Your task to perform on an android device: Open Wikipedia Image 0: 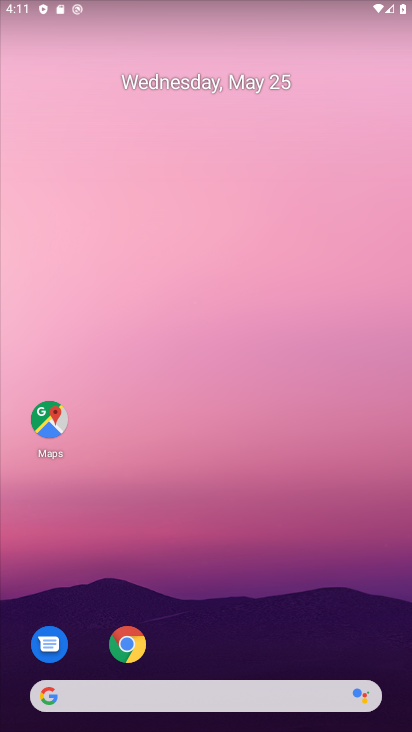
Step 0: click (124, 653)
Your task to perform on an android device: Open Wikipedia Image 1: 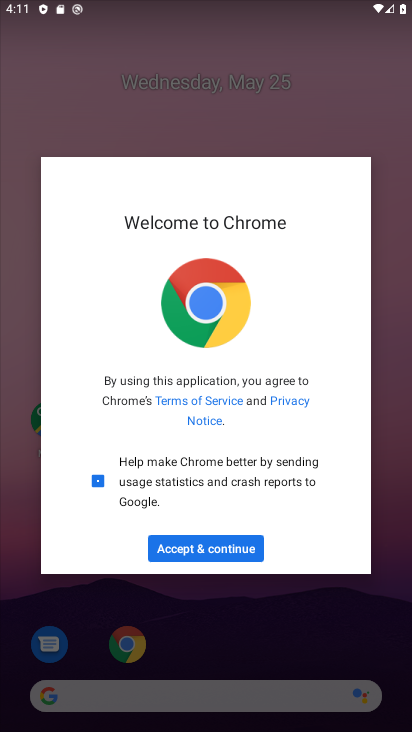
Step 1: click (124, 648)
Your task to perform on an android device: Open Wikipedia Image 2: 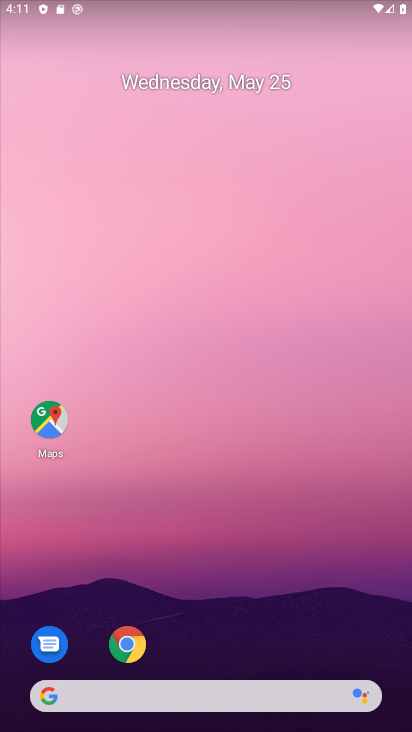
Step 2: click (229, 559)
Your task to perform on an android device: Open Wikipedia Image 3: 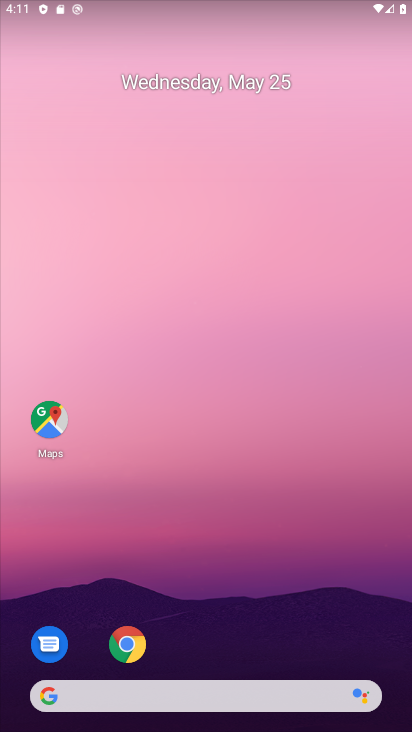
Step 3: click (149, 651)
Your task to perform on an android device: Open Wikipedia Image 4: 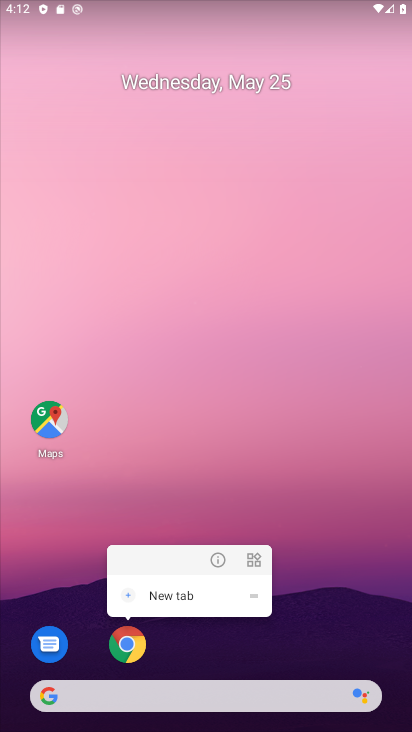
Step 4: click (136, 645)
Your task to perform on an android device: Open Wikipedia Image 5: 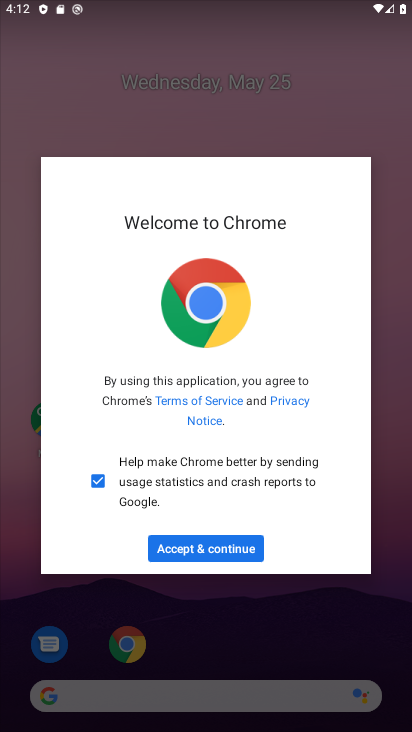
Step 5: click (212, 554)
Your task to perform on an android device: Open Wikipedia Image 6: 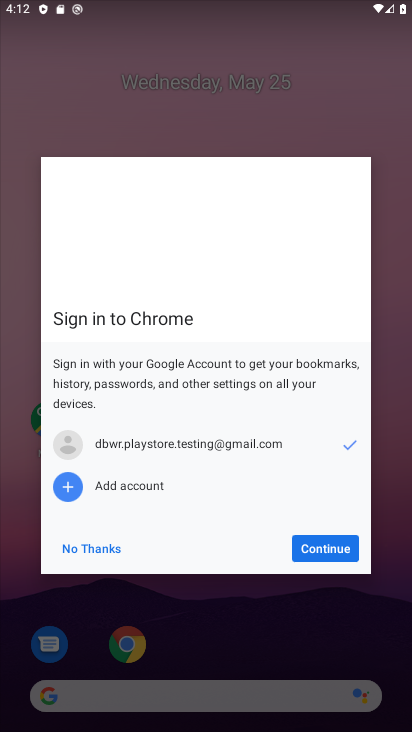
Step 6: click (359, 527)
Your task to perform on an android device: Open Wikipedia Image 7: 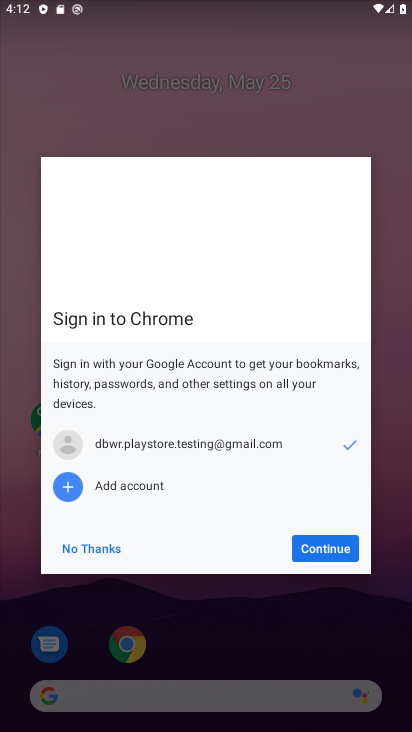
Step 7: click (330, 547)
Your task to perform on an android device: Open Wikipedia Image 8: 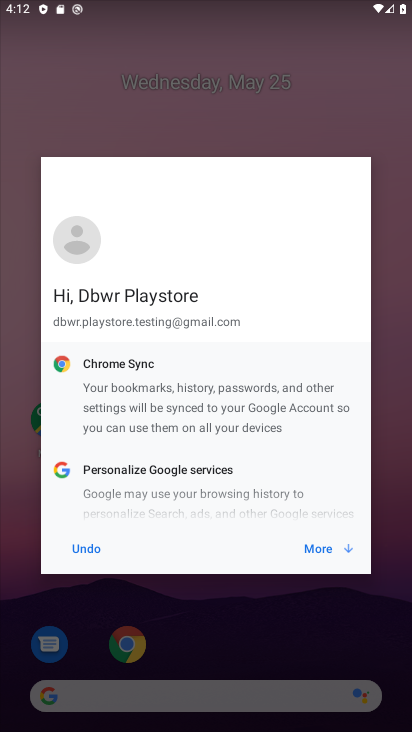
Step 8: click (330, 547)
Your task to perform on an android device: Open Wikipedia Image 9: 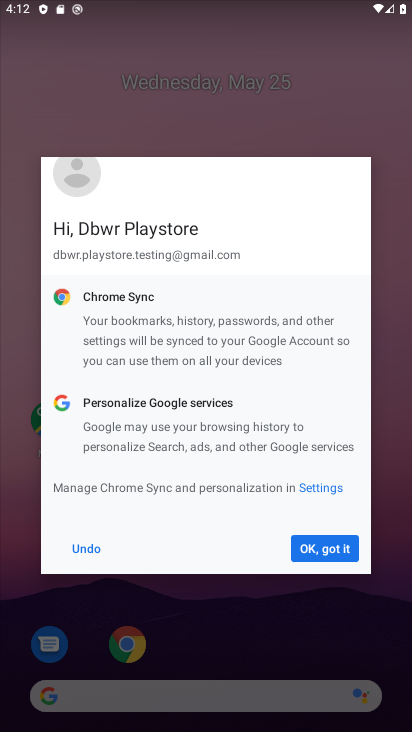
Step 9: click (330, 549)
Your task to perform on an android device: Open Wikipedia Image 10: 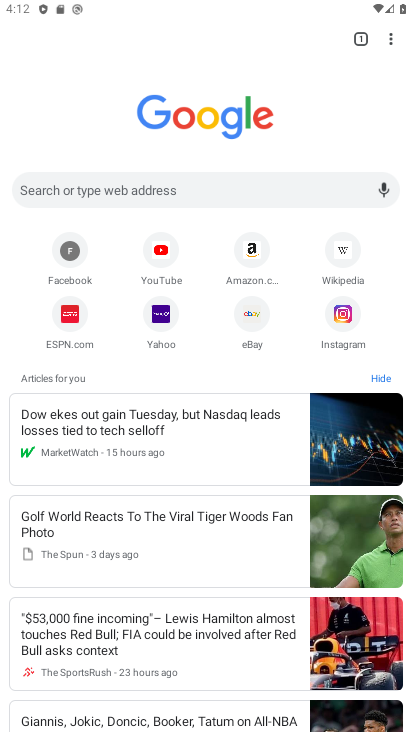
Step 10: click (333, 257)
Your task to perform on an android device: Open Wikipedia Image 11: 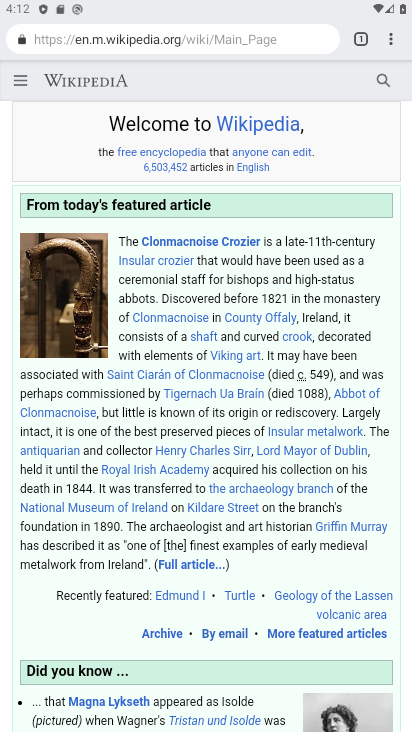
Step 11: task complete